Your task to perform on an android device: Open network settings Image 0: 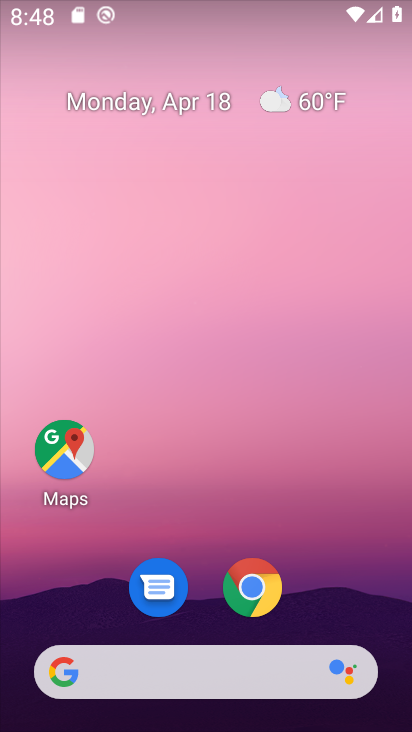
Step 0: drag from (361, 570) to (244, 163)
Your task to perform on an android device: Open network settings Image 1: 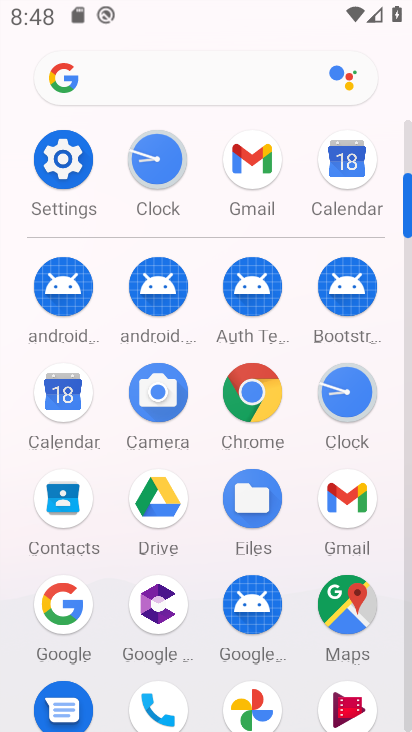
Step 1: click (63, 196)
Your task to perform on an android device: Open network settings Image 2: 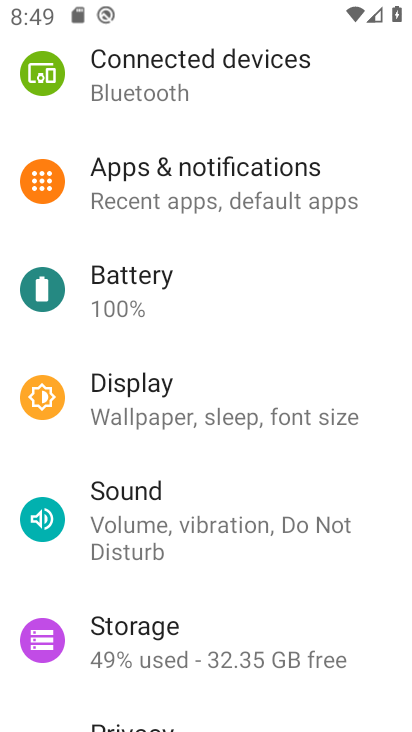
Step 2: drag from (210, 124) to (210, 654)
Your task to perform on an android device: Open network settings Image 3: 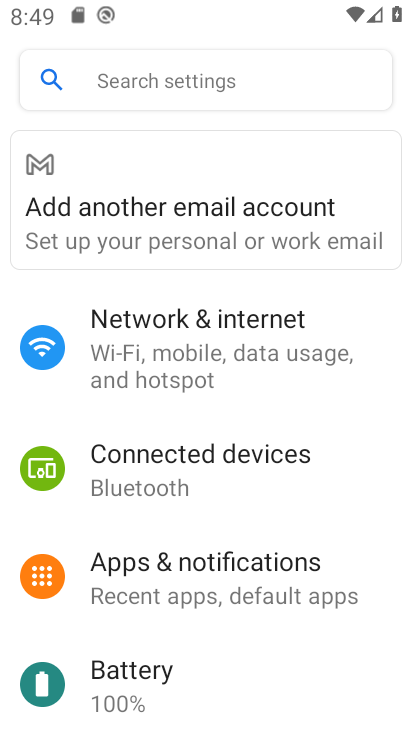
Step 3: click (251, 344)
Your task to perform on an android device: Open network settings Image 4: 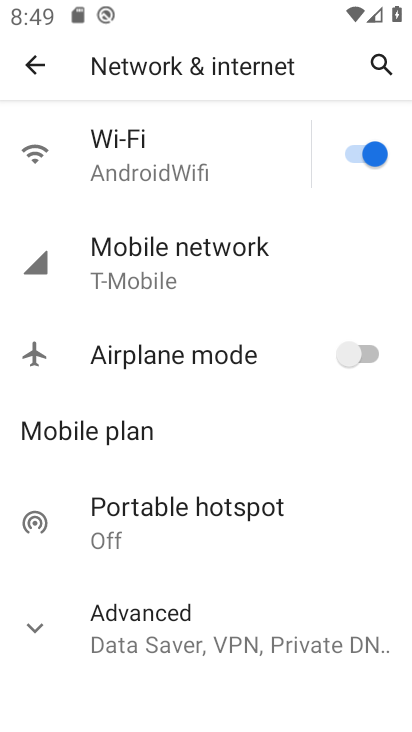
Step 4: click (138, 284)
Your task to perform on an android device: Open network settings Image 5: 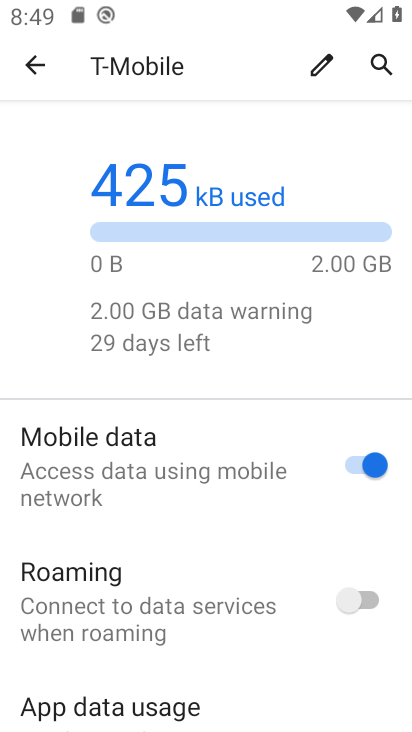
Step 5: drag from (233, 586) to (192, 126)
Your task to perform on an android device: Open network settings Image 6: 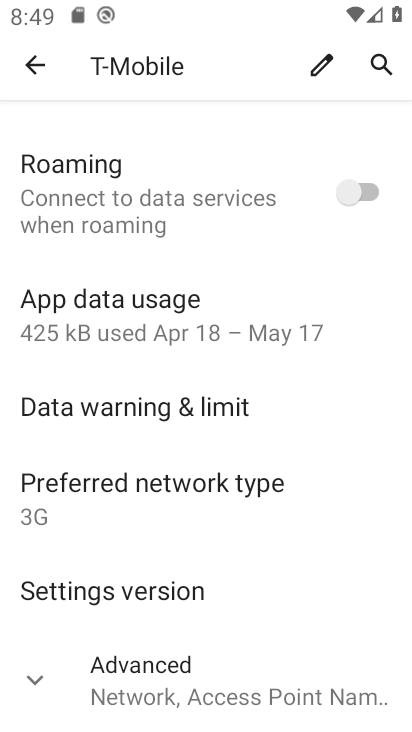
Step 6: drag from (178, 646) to (263, 251)
Your task to perform on an android device: Open network settings Image 7: 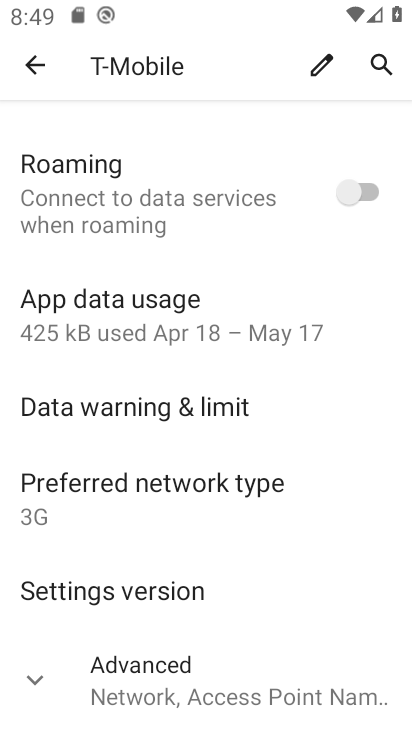
Step 7: click (179, 683)
Your task to perform on an android device: Open network settings Image 8: 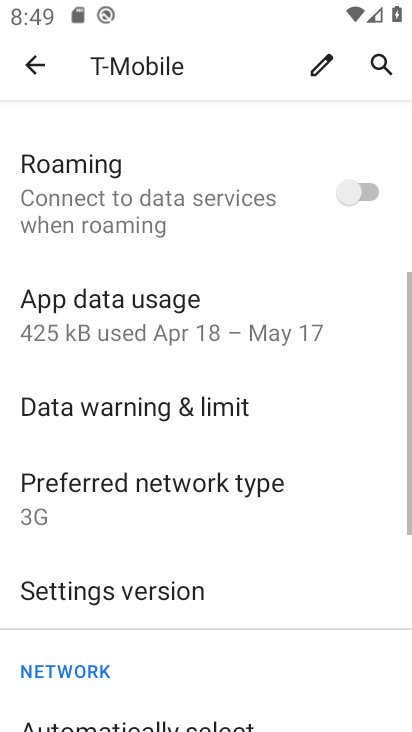
Step 8: task complete